Your task to perform on an android device: turn on translation in the chrome app Image 0: 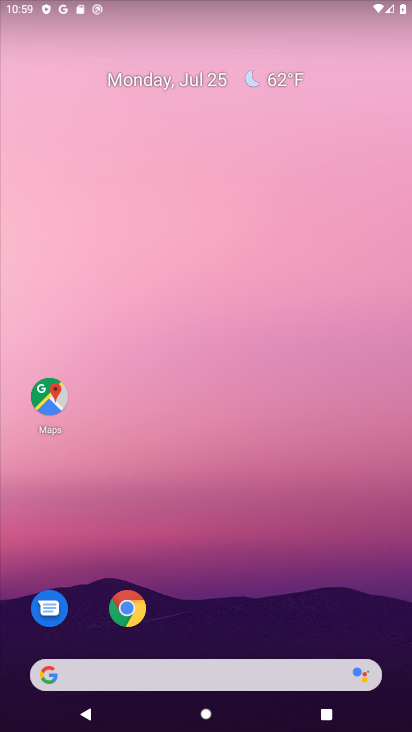
Step 0: click (132, 603)
Your task to perform on an android device: turn on translation in the chrome app Image 1: 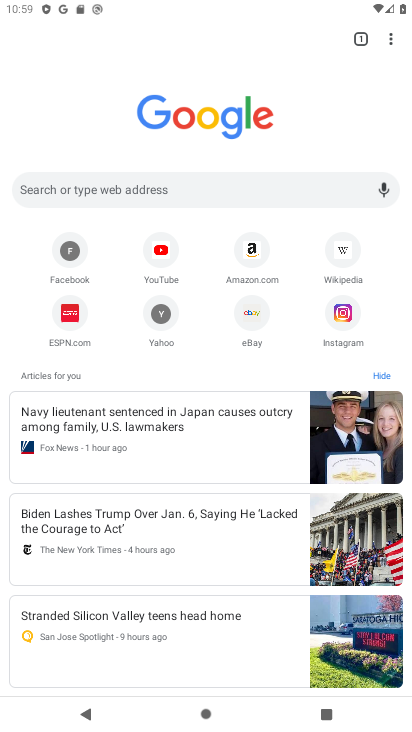
Step 1: task complete